Your task to perform on an android device: Open Amazon Image 0: 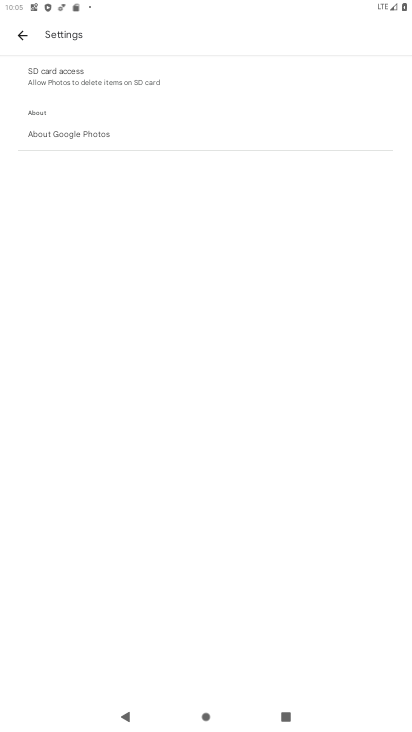
Step 0: press home button
Your task to perform on an android device: Open Amazon Image 1: 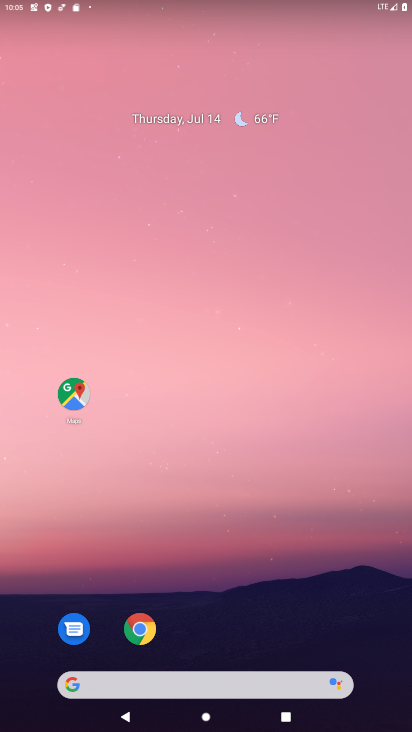
Step 1: drag from (288, 577) to (277, 115)
Your task to perform on an android device: Open Amazon Image 2: 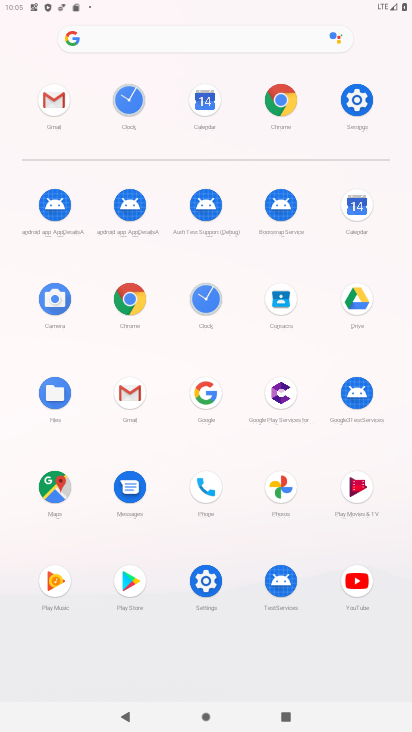
Step 2: click (200, 389)
Your task to perform on an android device: Open Amazon Image 3: 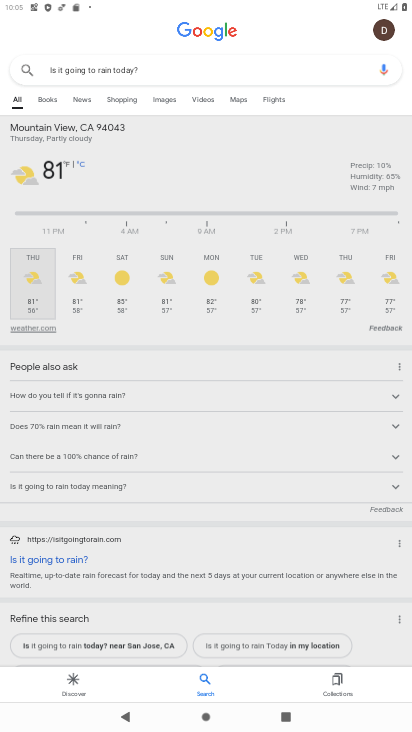
Step 3: click (173, 61)
Your task to perform on an android device: Open Amazon Image 4: 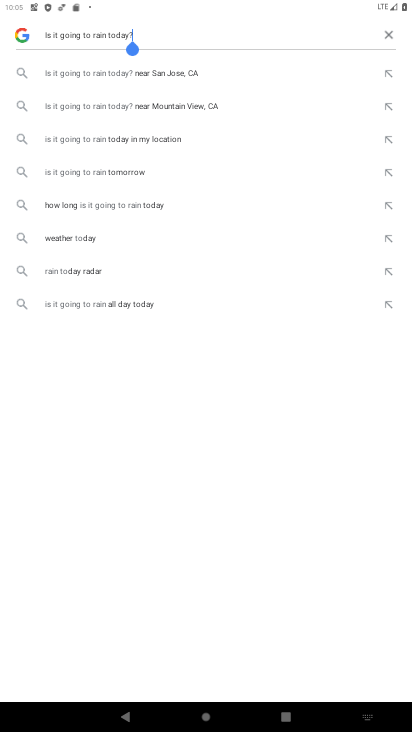
Step 4: click (391, 31)
Your task to perform on an android device: Open Amazon Image 5: 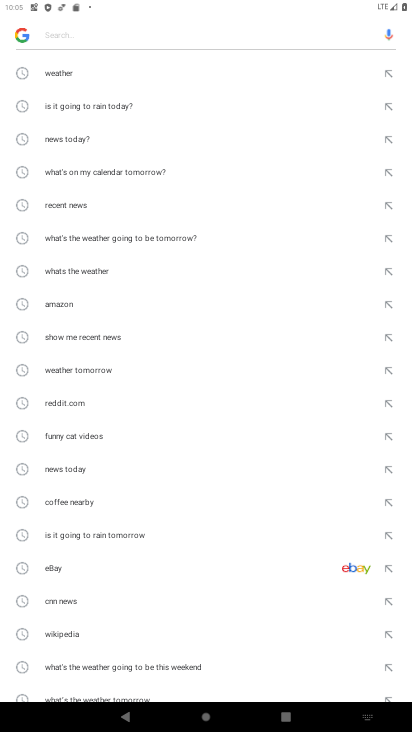
Step 5: type "Amazon"
Your task to perform on an android device: Open Amazon Image 6: 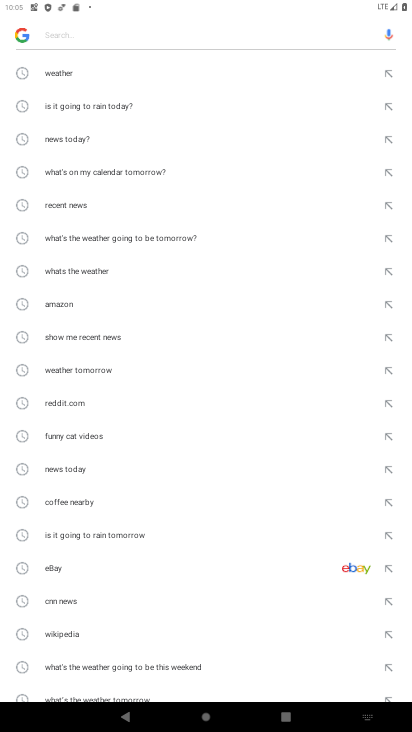
Step 6: click (231, 34)
Your task to perform on an android device: Open Amazon Image 7: 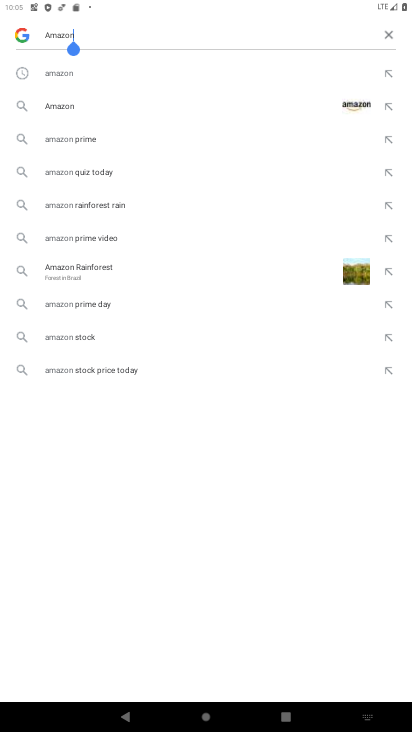
Step 7: click (357, 101)
Your task to perform on an android device: Open Amazon Image 8: 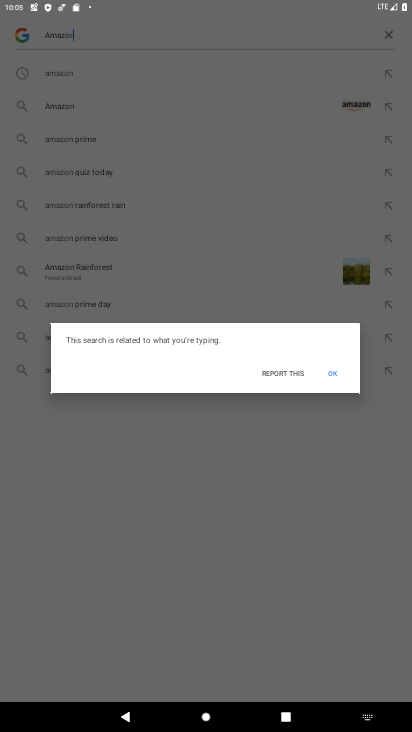
Step 8: click (327, 377)
Your task to perform on an android device: Open Amazon Image 9: 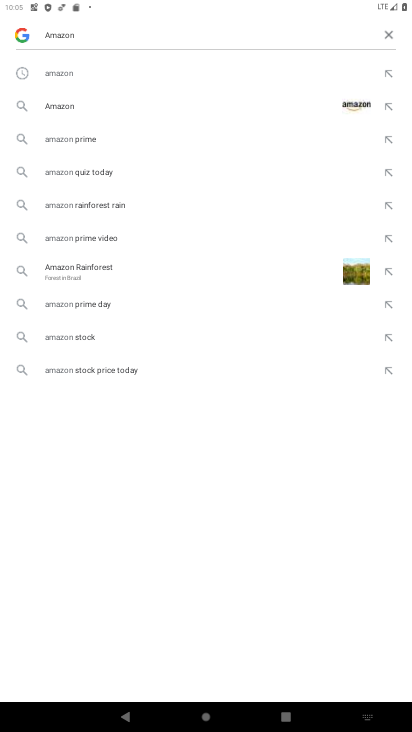
Step 9: click (360, 103)
Your task to perform on an android device: Open Amazon Image 10: 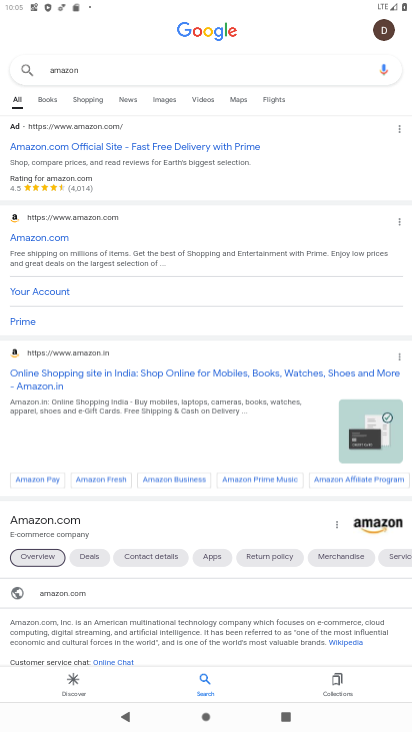
Step 10: click (42, 237)
Your task to perform on an android device: Open Amazon Image 11: 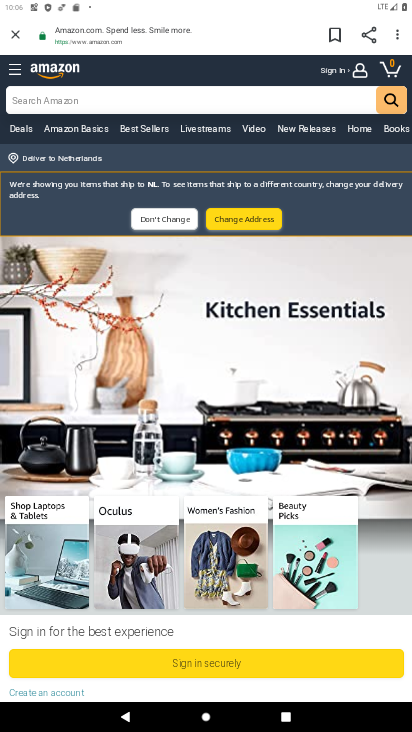
Step 11: task complete